Your task to perform on an android device: Open Google Maps and go to "Timeline" Image 0: 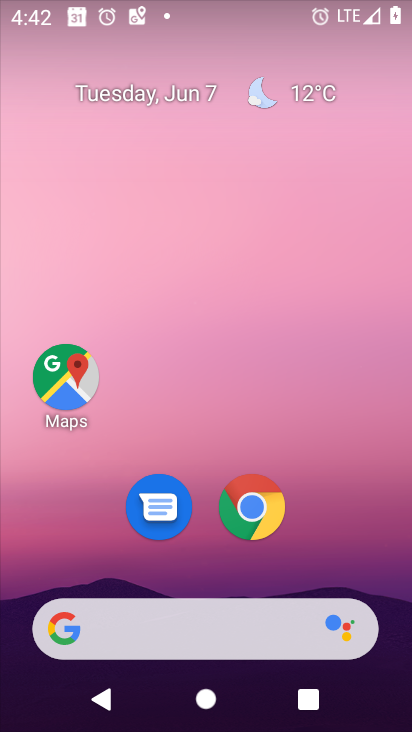
Step 0: drag from (335, 551) to (292, 17)
Your task to perform on an android device: Open Google Maps and go to "Timeline" Image 1: 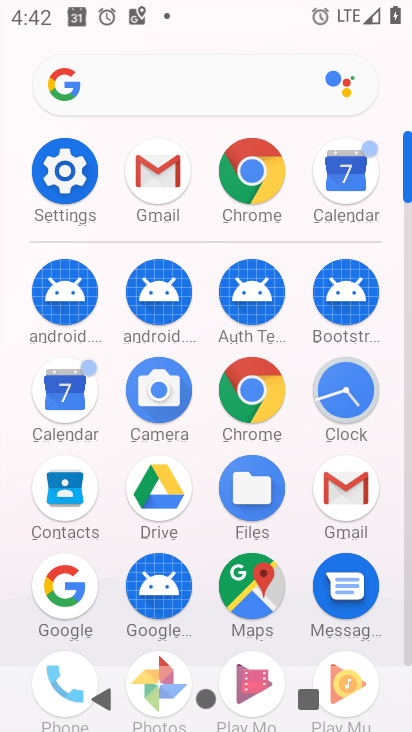
Step 1: drag from (2, 612) to (41, 227)
Your task to perform on an android device: Open Google Maps and go to "Timeline" Image 2: 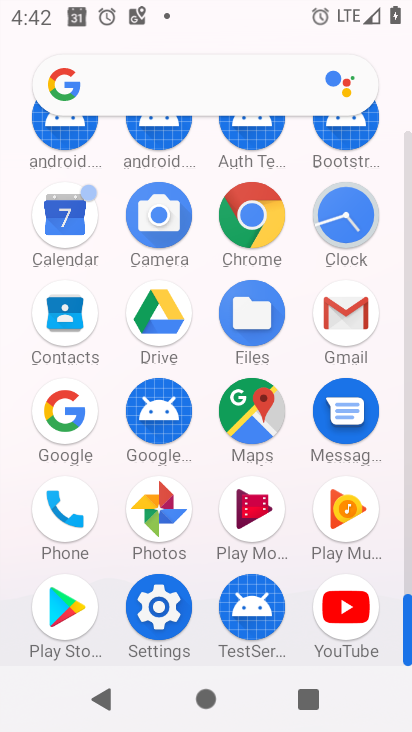
Step 2: click (255, 405)
Your task to perform on an android device: Open Google Maps and go to "Timeline" Image 3: 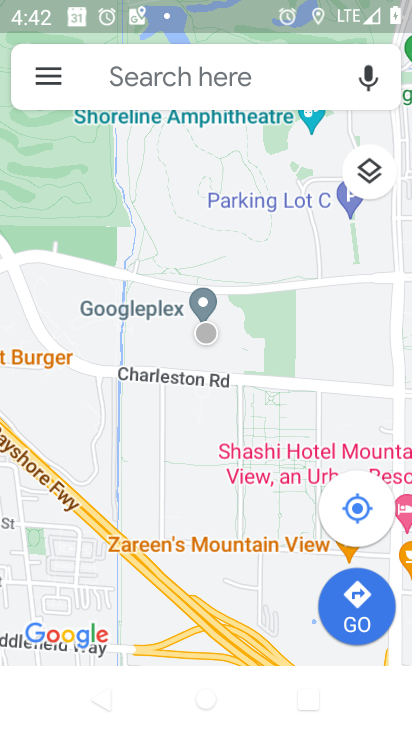
Step 3: click (42, 80)
Your task to perform on an android device: Open Google Maps and go to "Timeline" Image 4: 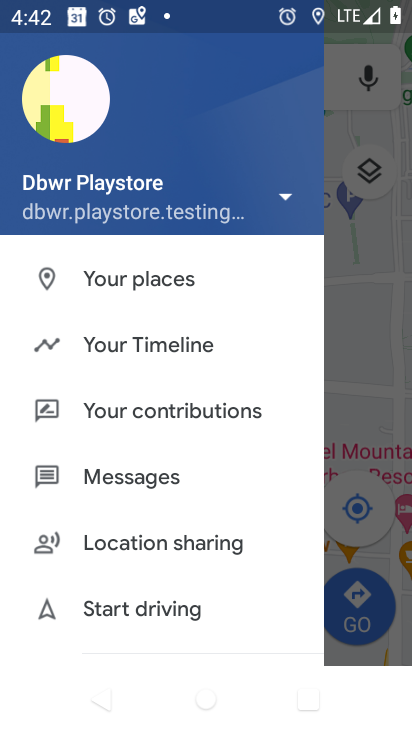
Step 4: click (144, 344)
Your task to perform on an android device: Open Google Maps and go to "Timeline" Image 5: 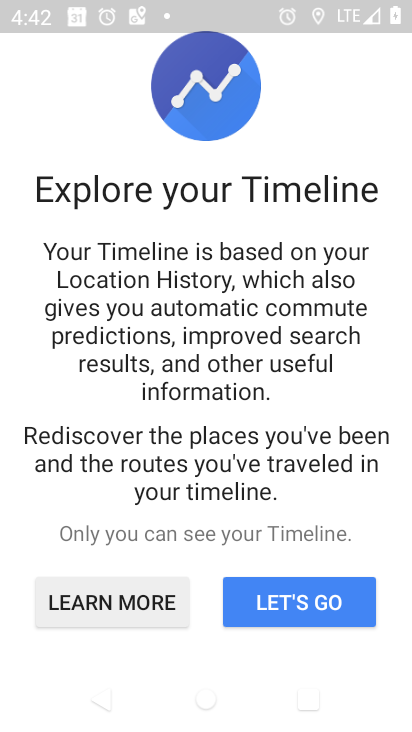
Step 5: click (347, 599)
Your task to perform on an android device: Open Google Maps and go to "Timeline" Image 6: 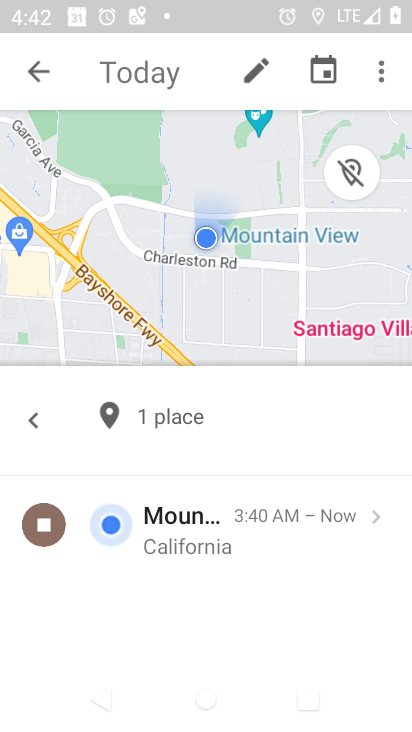
Step 6: task complete